Your task to perform on an android device: Search for hotels in Atlanta Image 0: 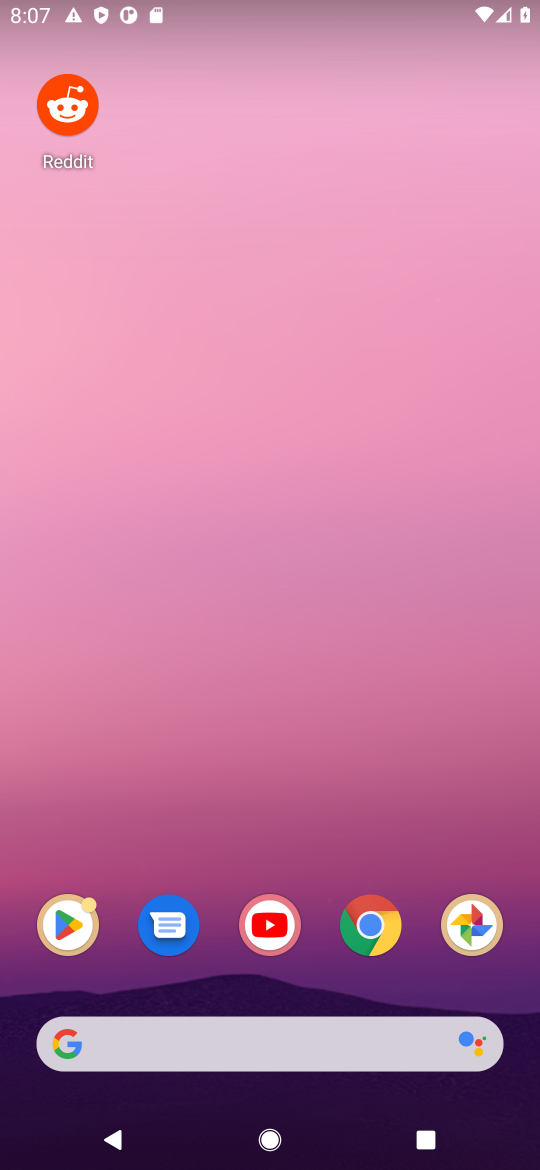
Step 0: drag from (313, 980) to (299, 90)
Your task to perform on an android device: Search for hotels in Atlanta Image 1: 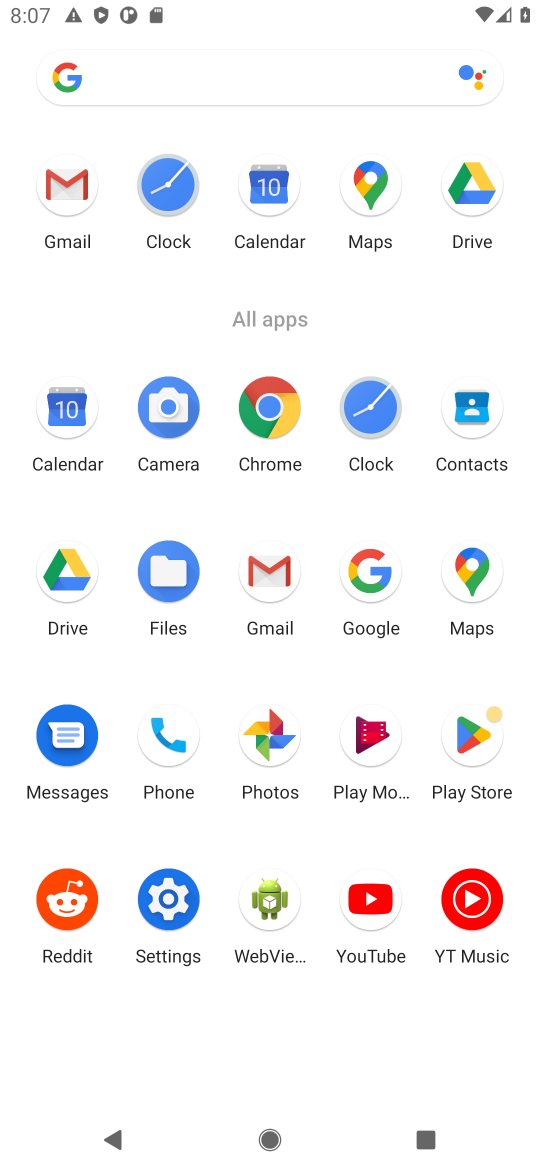
Step 1: click (266, 401)
Your task to perform on an android device: Search for hotels in Atlanta Image 2: 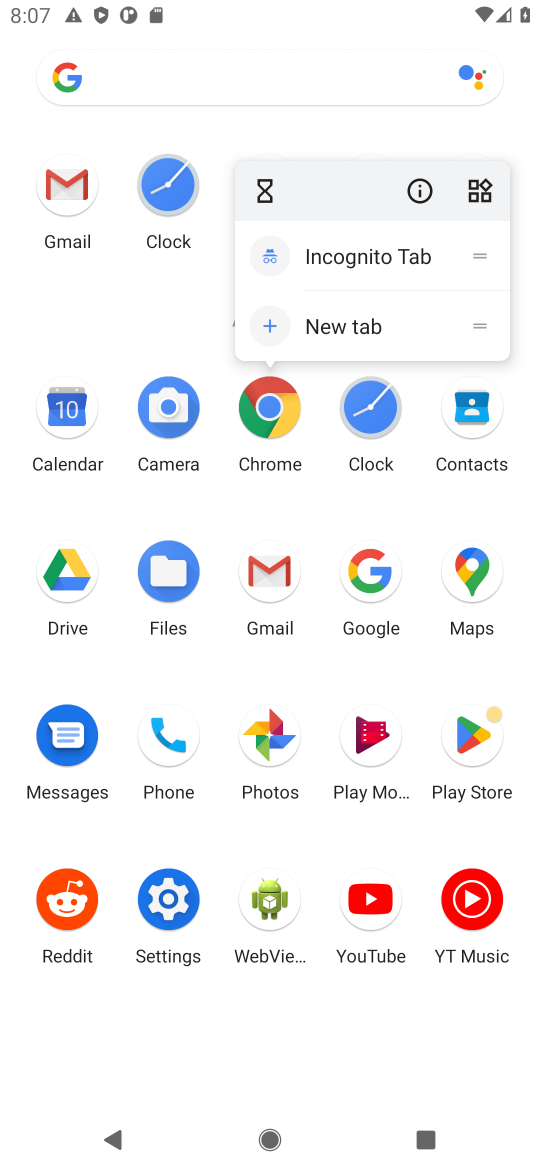
Step 2: click (283, 407)
Your task to perform on an android device: Search for hotels in Atlanta Image 3: 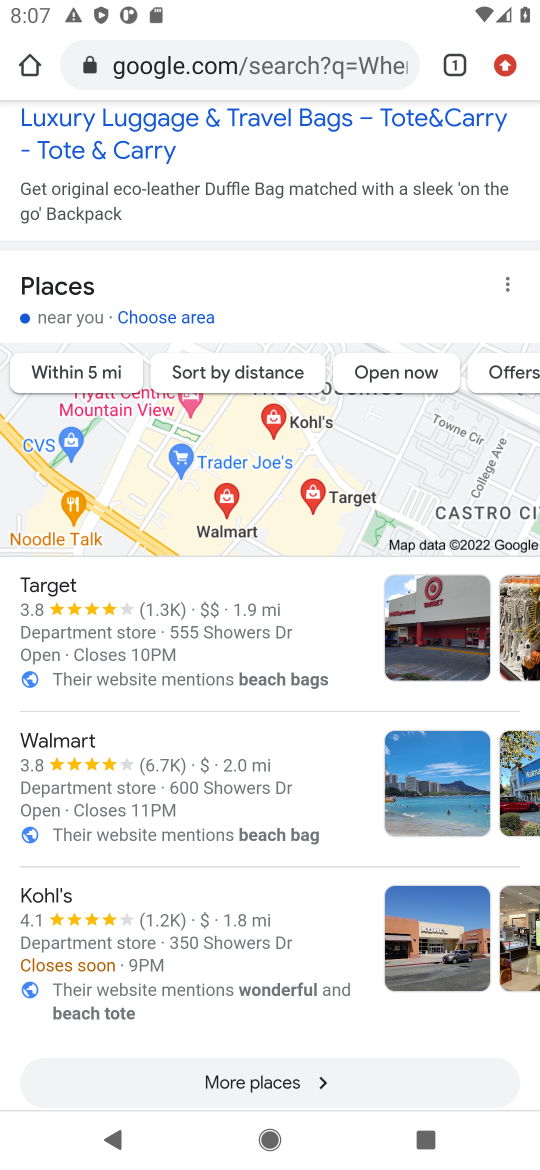
Step 3: click (250, 63)
Your task to perform on an android device: Search for hotels in Atlanta Image 4: 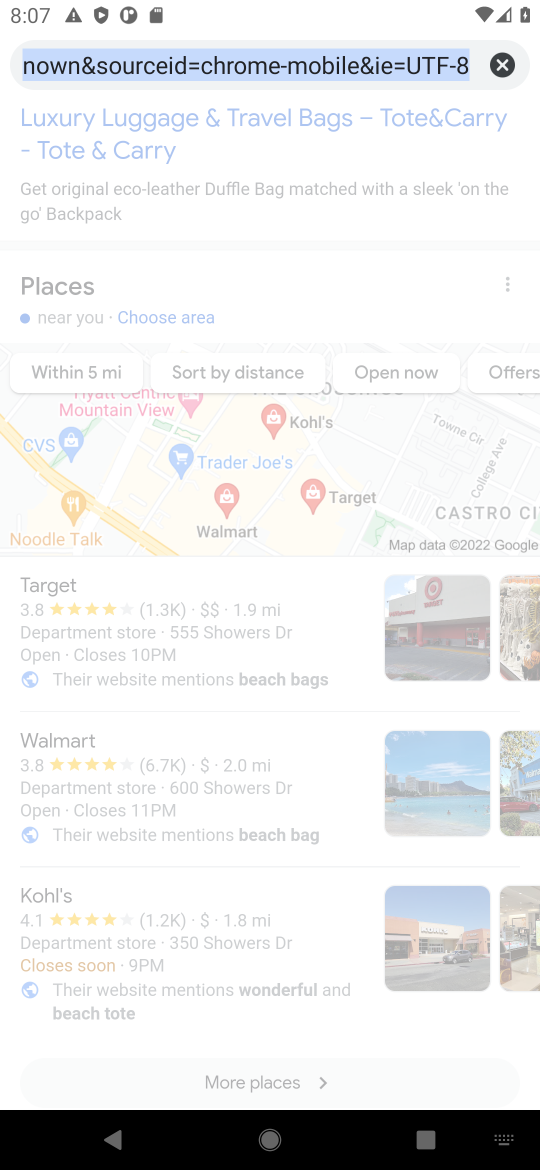
Step 4: type "hotels in Stlanta"
Your task to perform on an android device: Search for hotels in Atlanta Image 5: 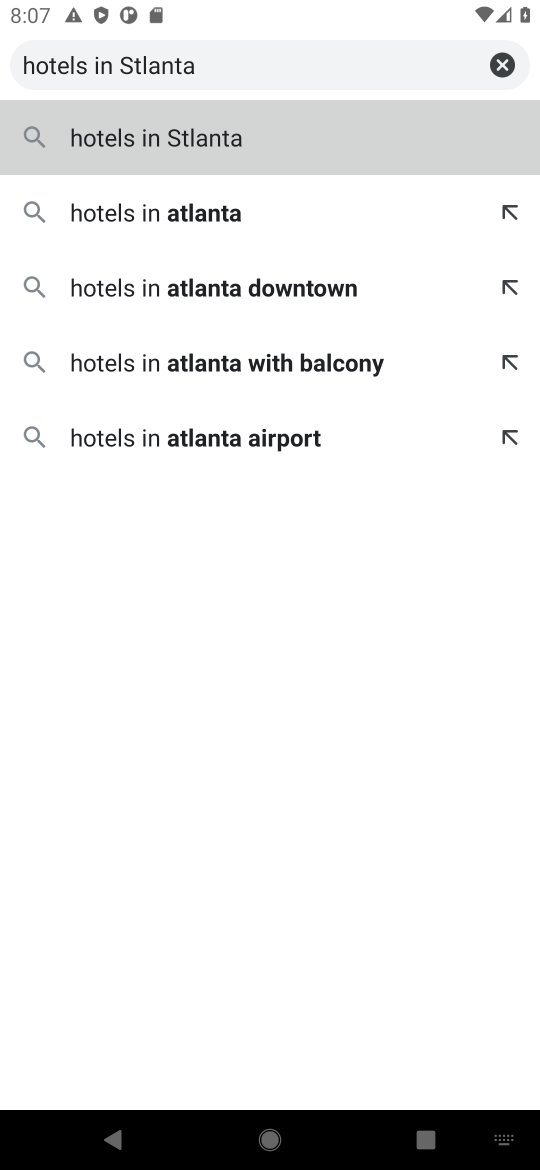
Step 5: type "hotels in Atlanta"
Your task to perform on an android device: Search for hotels in Atlanta Image 6: 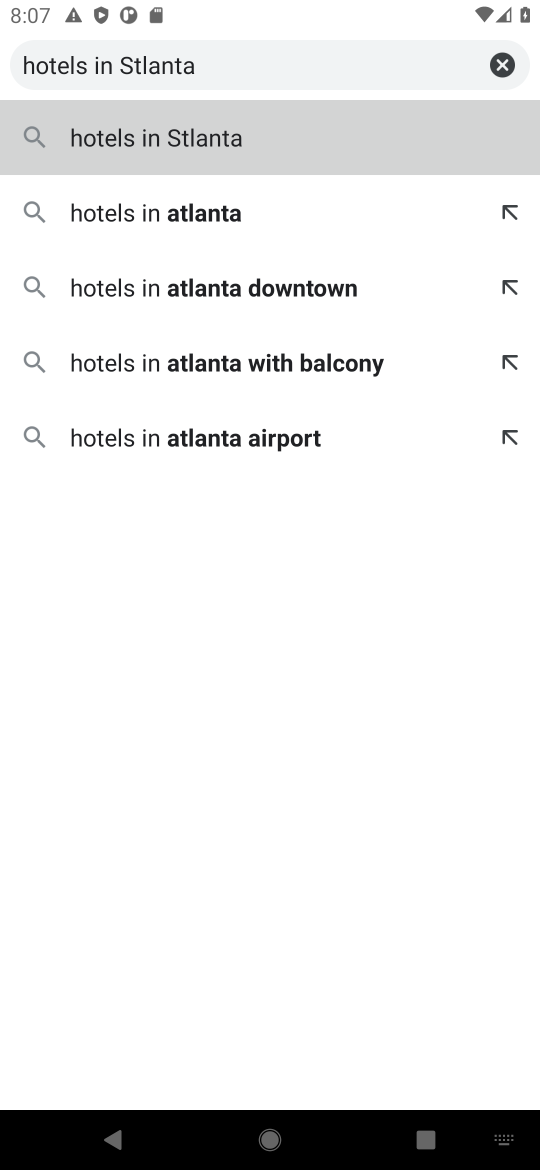
Step 6: click (238, 208)
Your task to perform on an android device: Search for hotels in Atlanta Image 7: 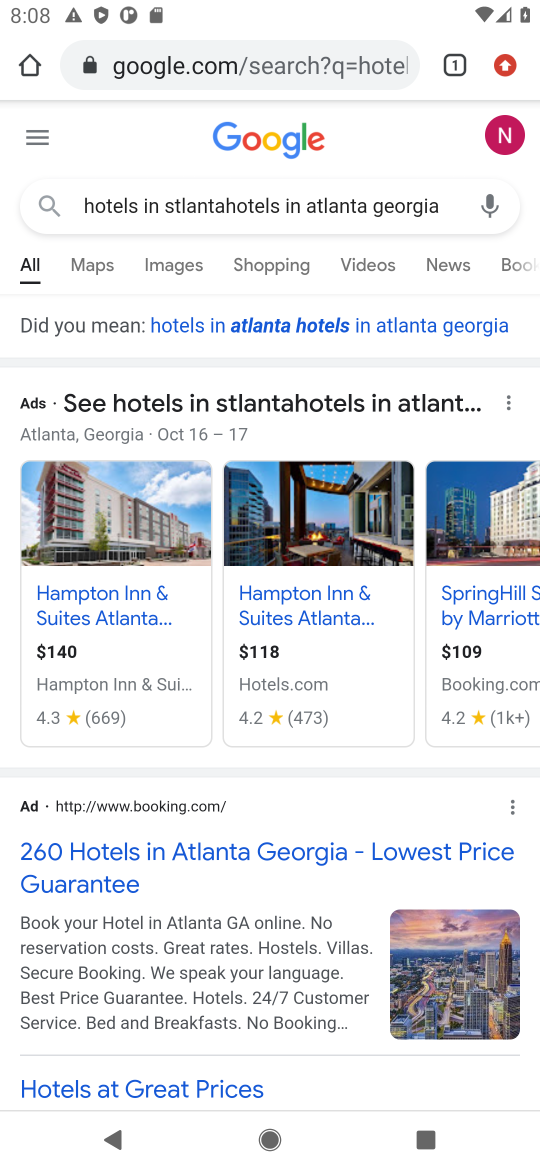
Step 7: task complete